Your task to perform on an android device: Open the web browser Image 0: 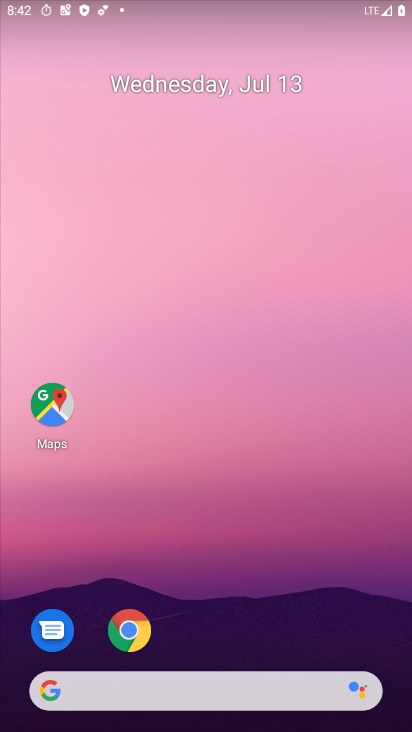
Step 0: drag from (339, 618) to (371, 191)
Your task to perform on an android device: Open the web browser Image 1: 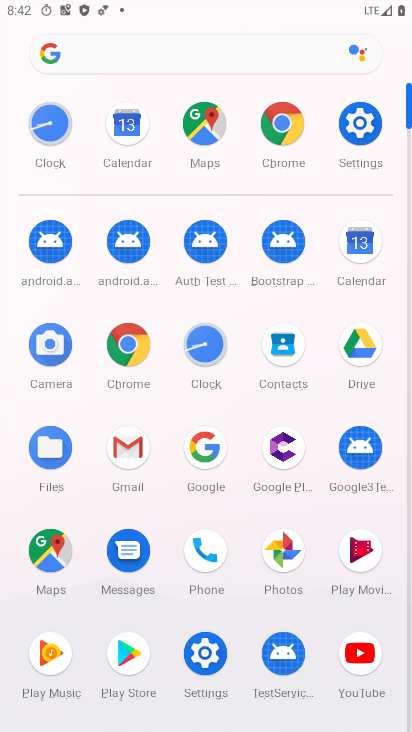
Step 1: click (130, 342)
Your task to perform on an android device: Open the web browser Image 2: 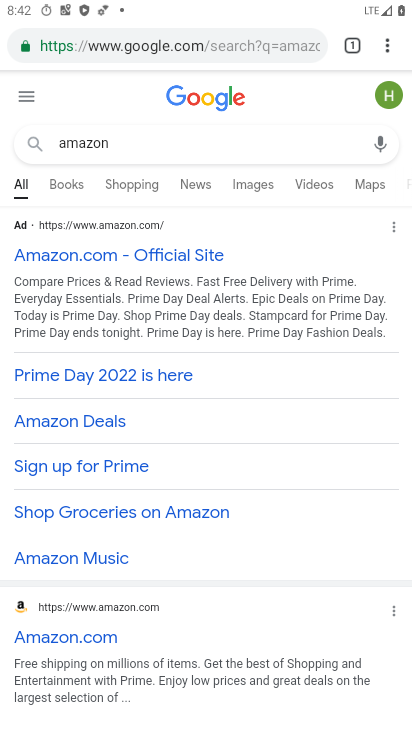
Step 2: task complete